Your task to perform on an android device: turn on data saver in the chrome app Image 0: 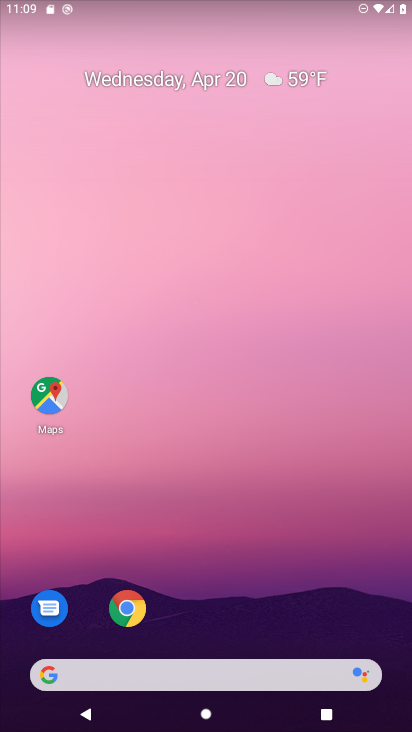
Step 0: click (123, 606)
Your task to perform on an android device: turn on data saver in the chrome app Image 1: 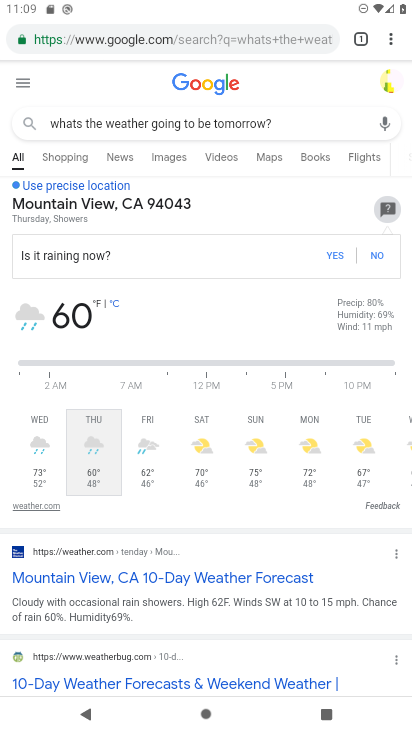
Step 1: drag from (385, 41) to (273, 441)
Your task to perform on an android device: turn on data saver in the chrome app Image 2: 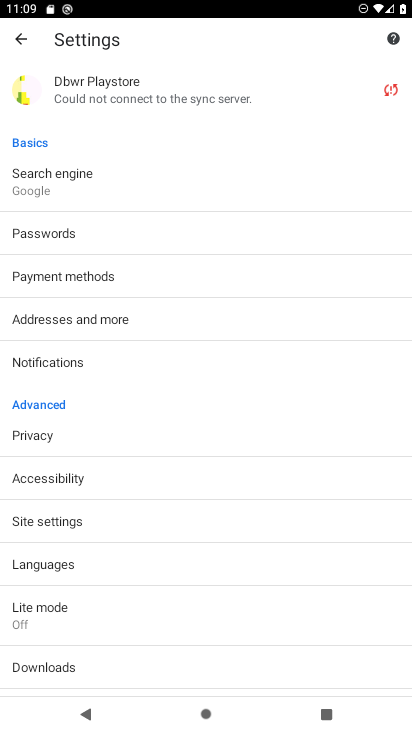
Step 2: click (78, 609)
Your task to perform on an android device: turn on data saver in the chrome app Image 3: 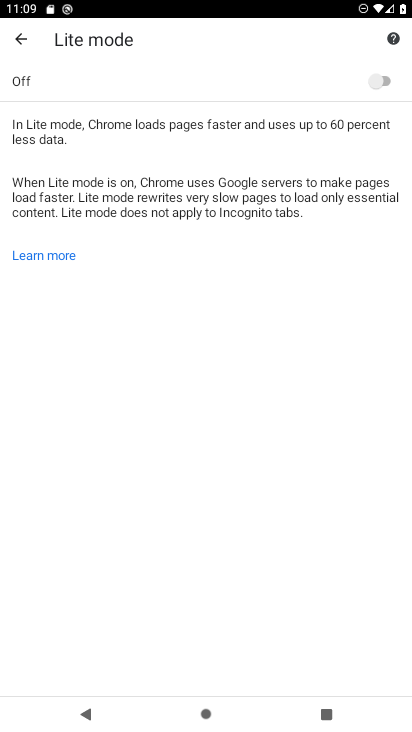
Step 3: click (374, 85)
Your task to perform on an android device: turn on data saver in the chrome app Image 4: 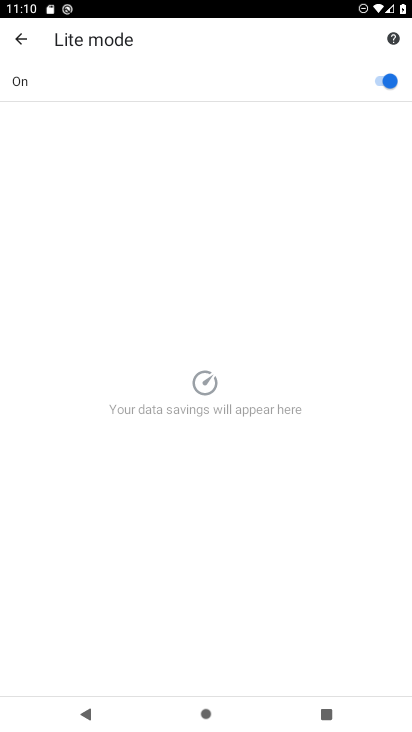
Step 4: task complete